Your task to perform on an android device: What's on my calendar tomorrow? Image 0: 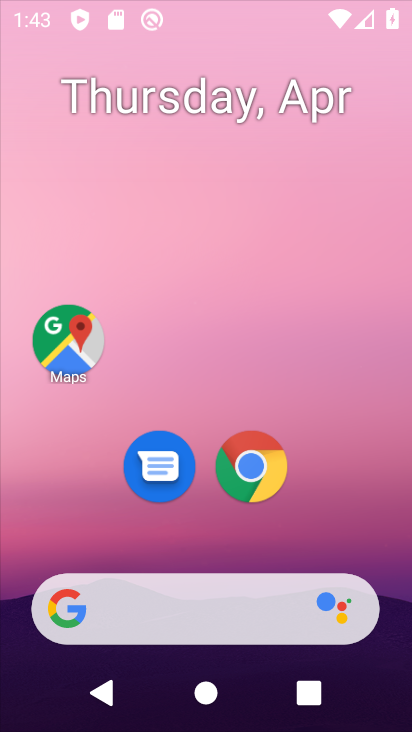
Step 0: drag from (359, 538) to (255, 33)
Your task to perform on an android device: What's on my calendar tomorrow? Image 1: 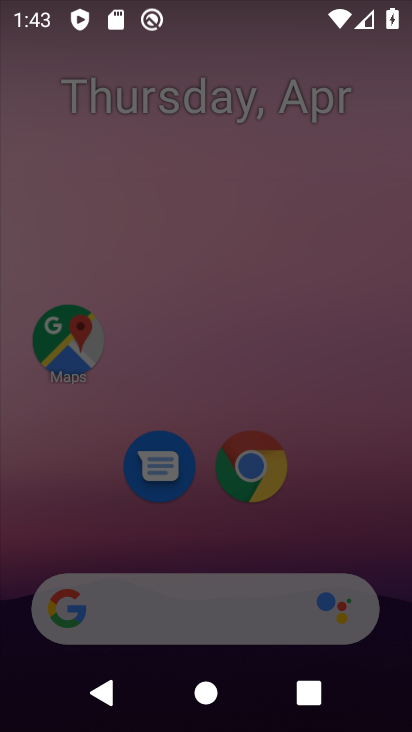
Step 1: press back button
Your task to perform on an android device: What's on my calendar tomorrow? Image 2: 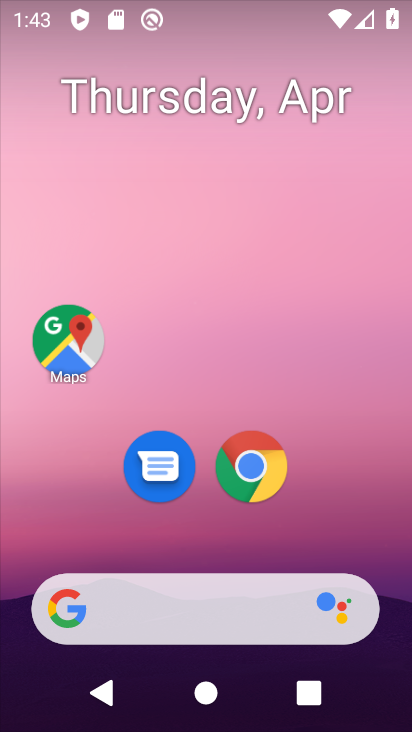
Step 2: drag from (381, 490) to (318, 84)
Your task to perform on an android device: What's on my calendar tomorrow? Image 3: 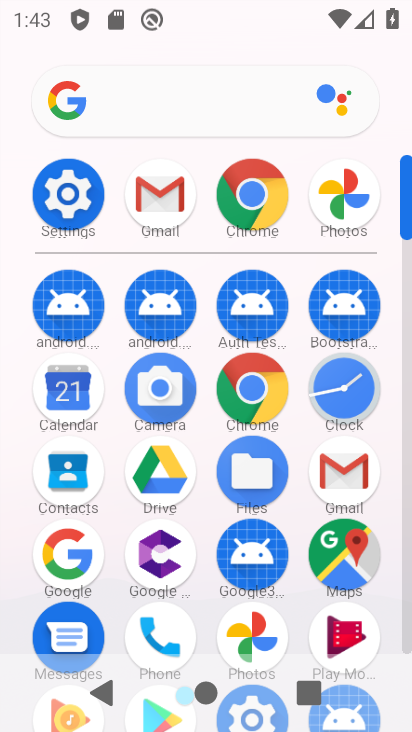
Step 3: click (69, 385)
Your task to perform on an android device: What's on my calendar tomorrow? Image 4: 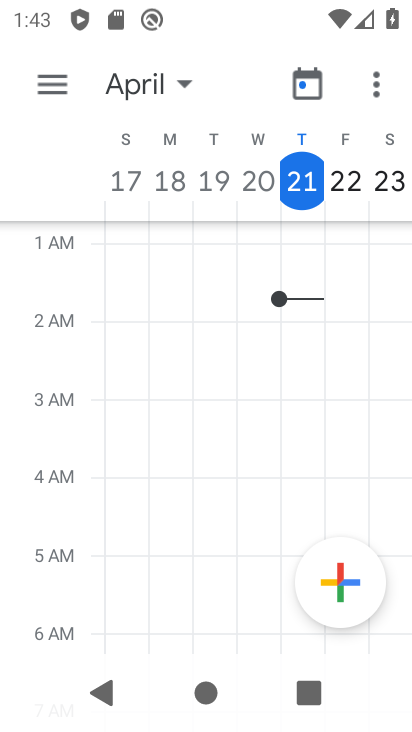
Step 4: click (347, 181)
Your task to perform on an android device: What's on my calendar tomorrow? Image 5: 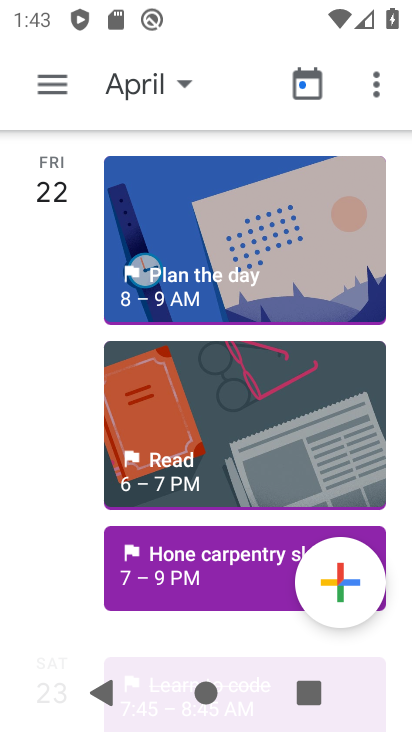
Step 5: task complete